Your task to perform on an android device: Is it going to rain this weekend? Image 0: 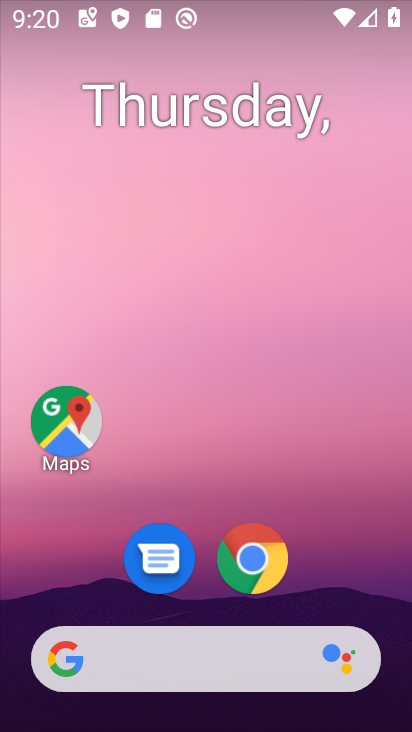
Step 0: drag from (319, 578) to (210, 84)
Your task to perform on an android device: Is it going to rain this weekend? Image 1: 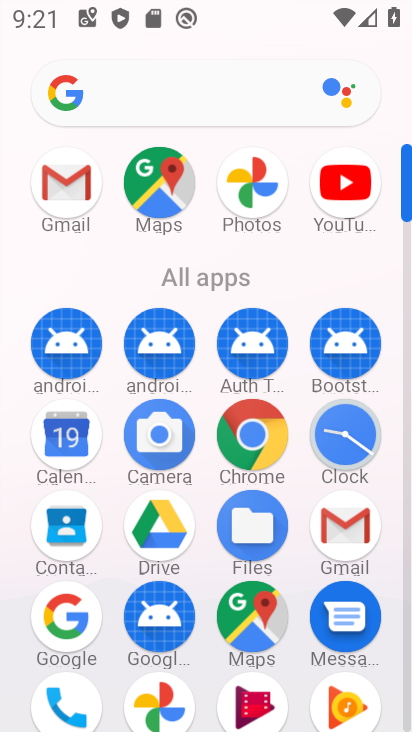
Step 1: click (62, 617)
Your task to perform on an android device: Is it going to rain this weekend? Image 2: 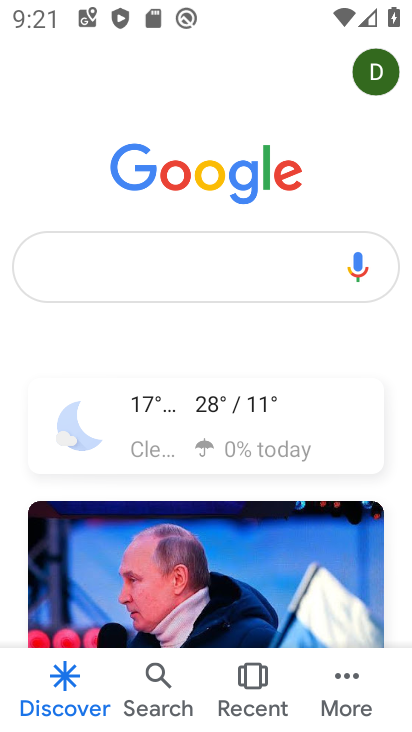
Step 2: click (164, 253)
Your task to perform on an android device: Is it going to rain this weekend? Image 3: 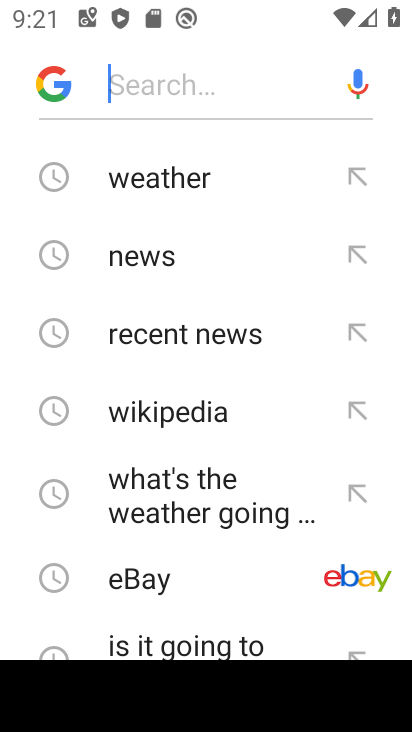
Step 3: type "Is it going to rain this weekend"
Your task to perform on an android device: Is it going to rain this weekend? Image 4: 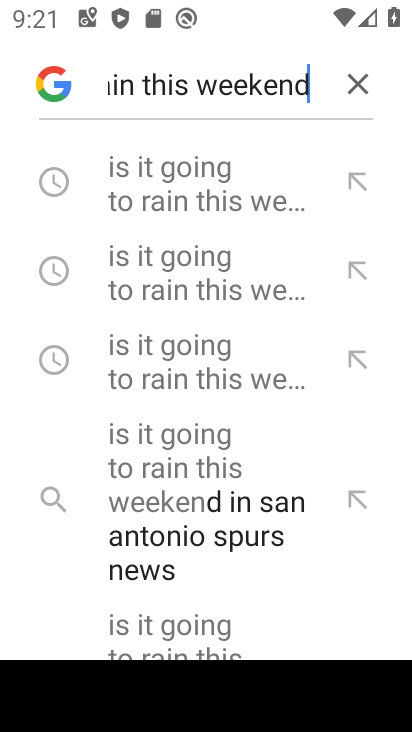
Step 4: type ""
Your task to perform on an android device: Is it going to rain this weekend? Image 5: 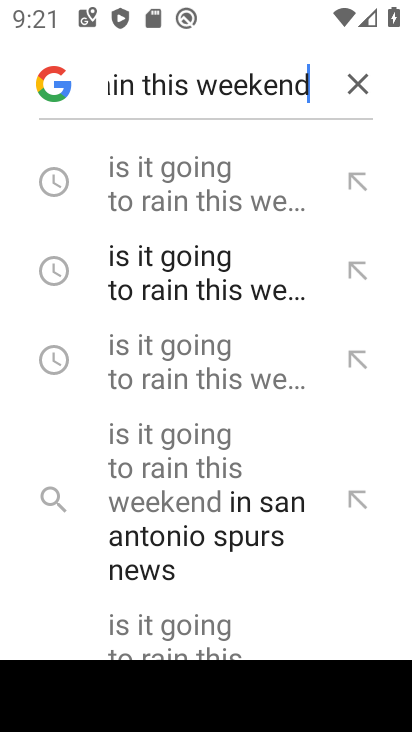
Step 5: click (202, 202)
Your task to perform on an android device: Is it going to rain this weekend? Image 6: 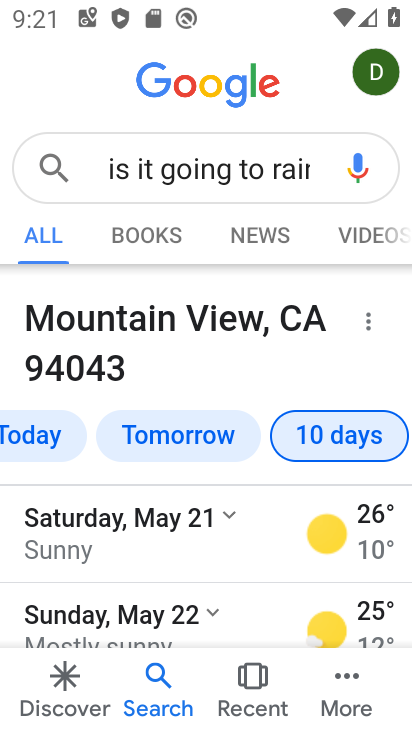
Step 6: task complete